Your task to perform on an android device: change your default location settings in chrome Image 0: 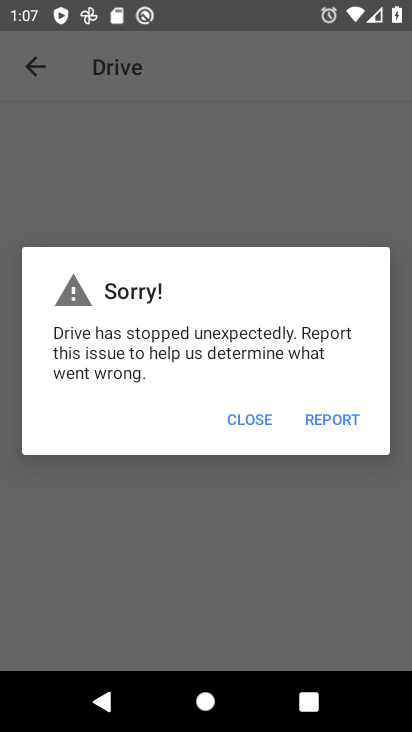
Step 0: press home button
Your task to perform on an android device: change your default location settings in chrome Image 1: 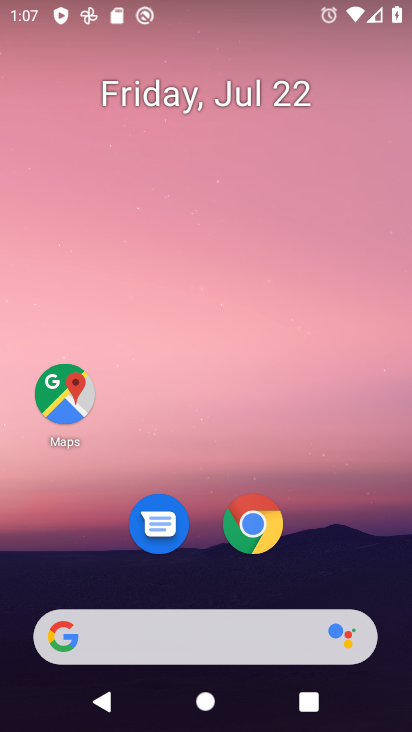
Step 1: click (246, 530)
Your task to perform on an android device: change your default location settings in chrome Image 2: 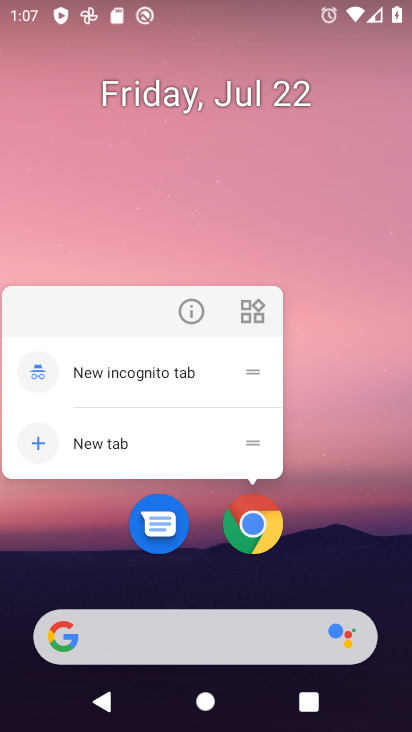
Step 2: click (247, 529)
Your task to perform on an android device: change your default location settings in chrome Image 3: 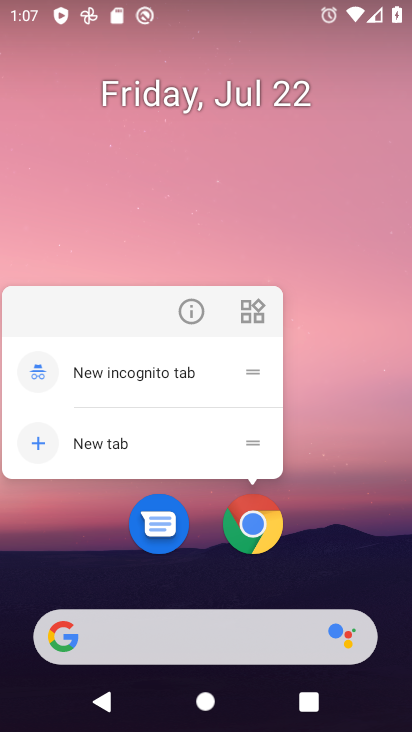
Step 3: click (251, 525)
Your task to perform on an android device: change your default location settings in chrome Image 4: 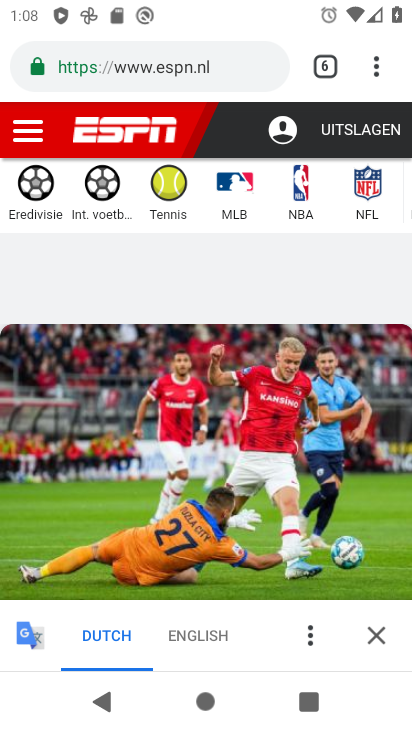
Step 4: drag from (379, 63) to (229, 531)
Your task to perform on an android device: change your default location settings in chrome Image 5: 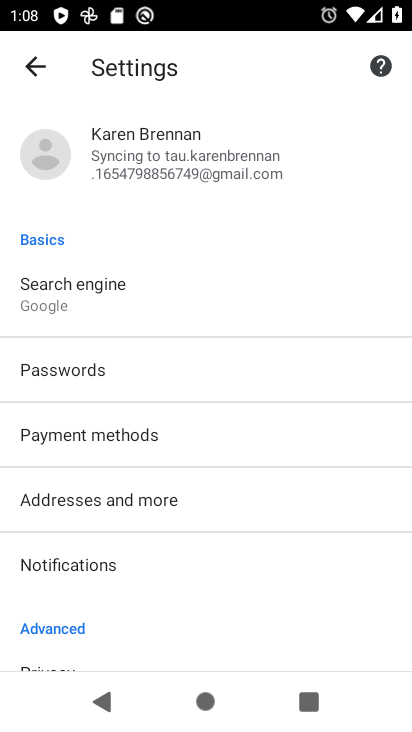
Step 5: drag from (139, 567) to (268, 282)
Your task to perform on an android device: change your default location settings in chrome Image 6: 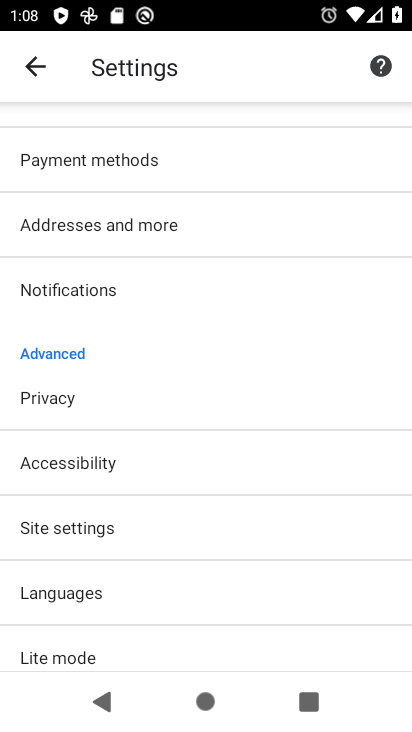
Step 6: click (103, 527)
Your task to perform on an android device: change your default location settings in chrome Image 7: 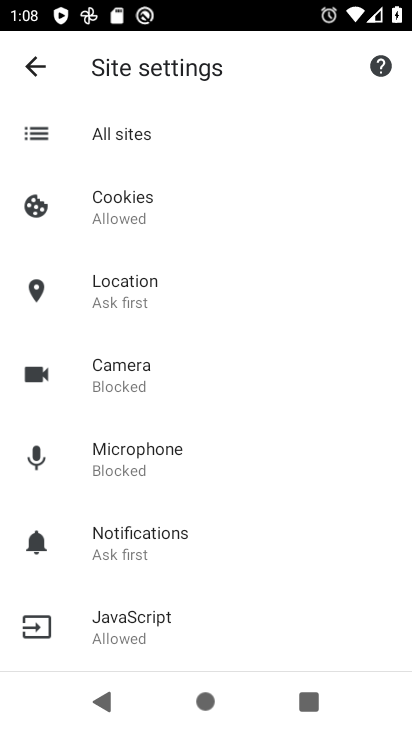
Step 7: click (129, 292)
Your task to perform on an android device: change your default location settings in chrome Image 8: 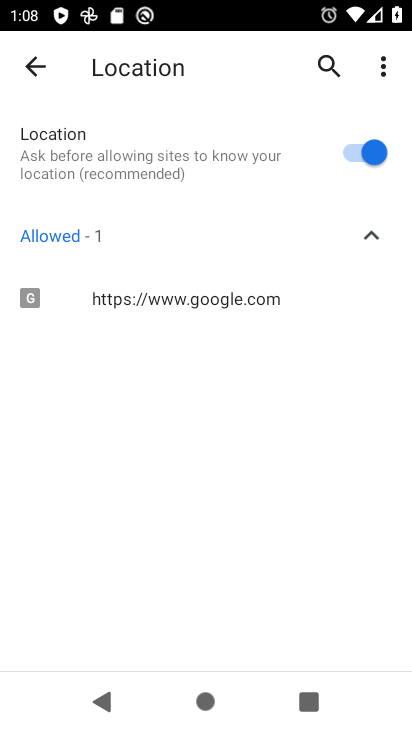
Step 8: click (348, 147)
Your task to perform on an android device: change your default location settings in chrome Image 9: 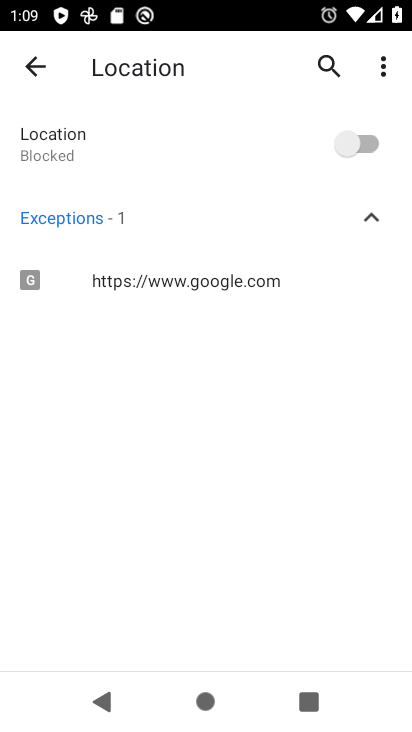
Step 9: task complete